Your task to perform on an android device: open app "Cash App" (install if not already installed) and go to login screen Image 0: 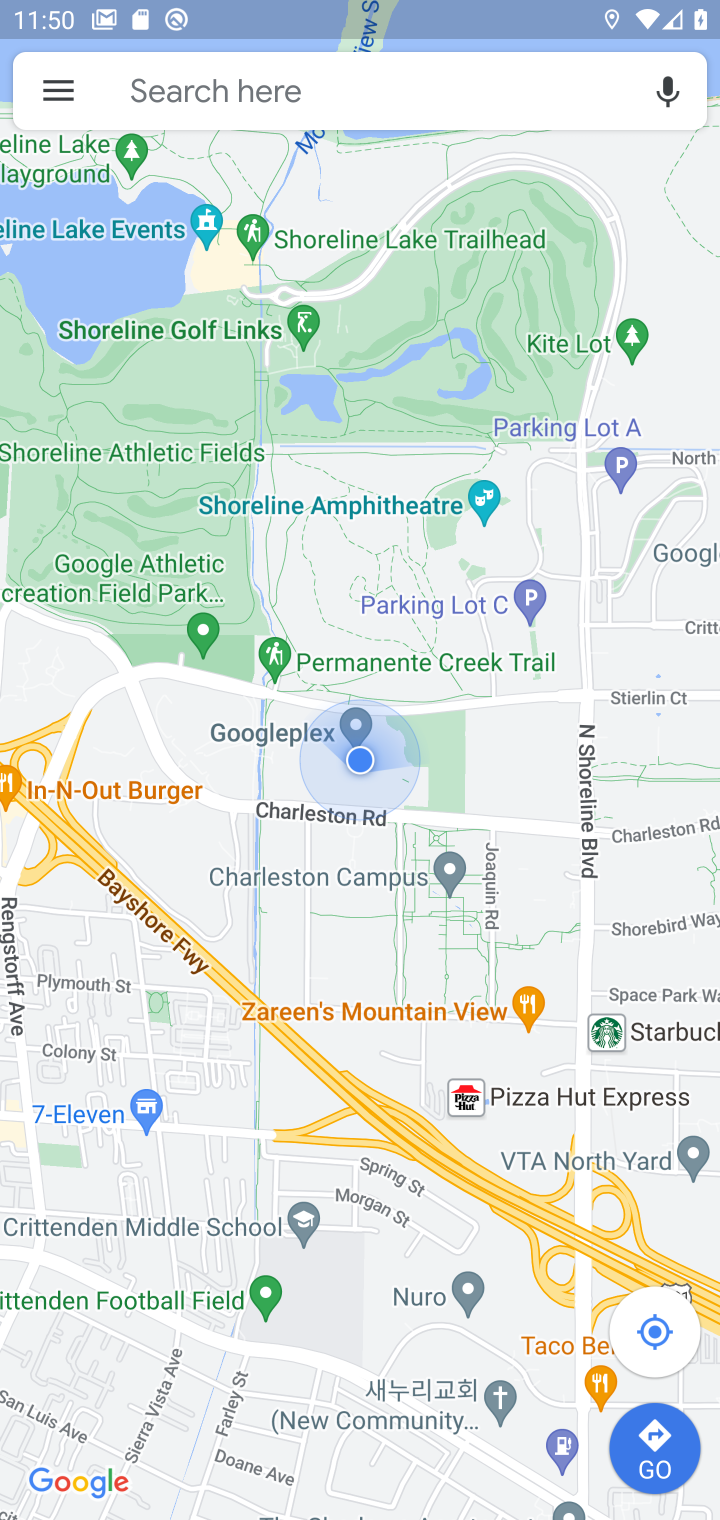
Step 0: press back button
Your task to perform on an android device: open app "Cash App" (install if not already installed) and go to login screen Image 1: 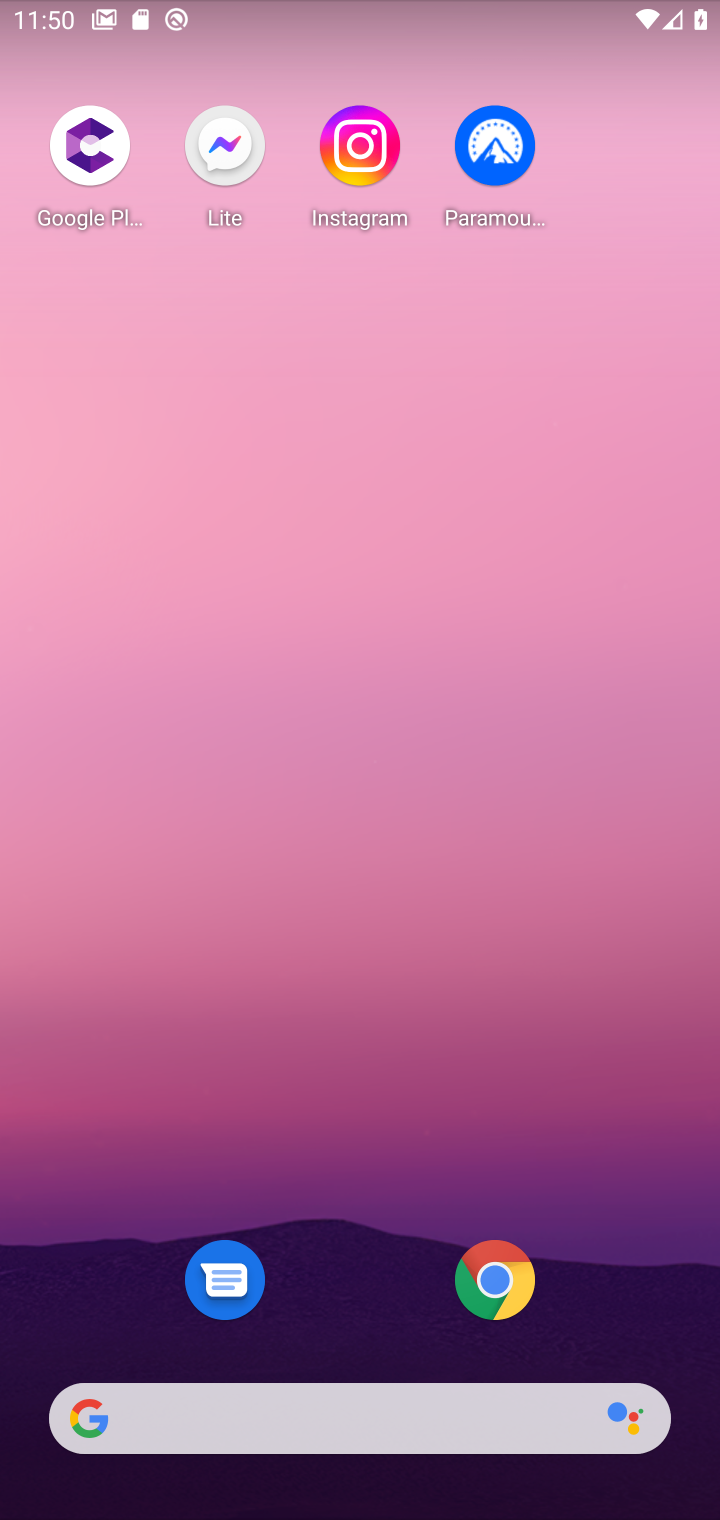
Step 1: drag from (373, 1206) to (529, 219)
Your task to perform on an android device: open app "Cash App" (install if not already installed) and go to login screen Image 2: 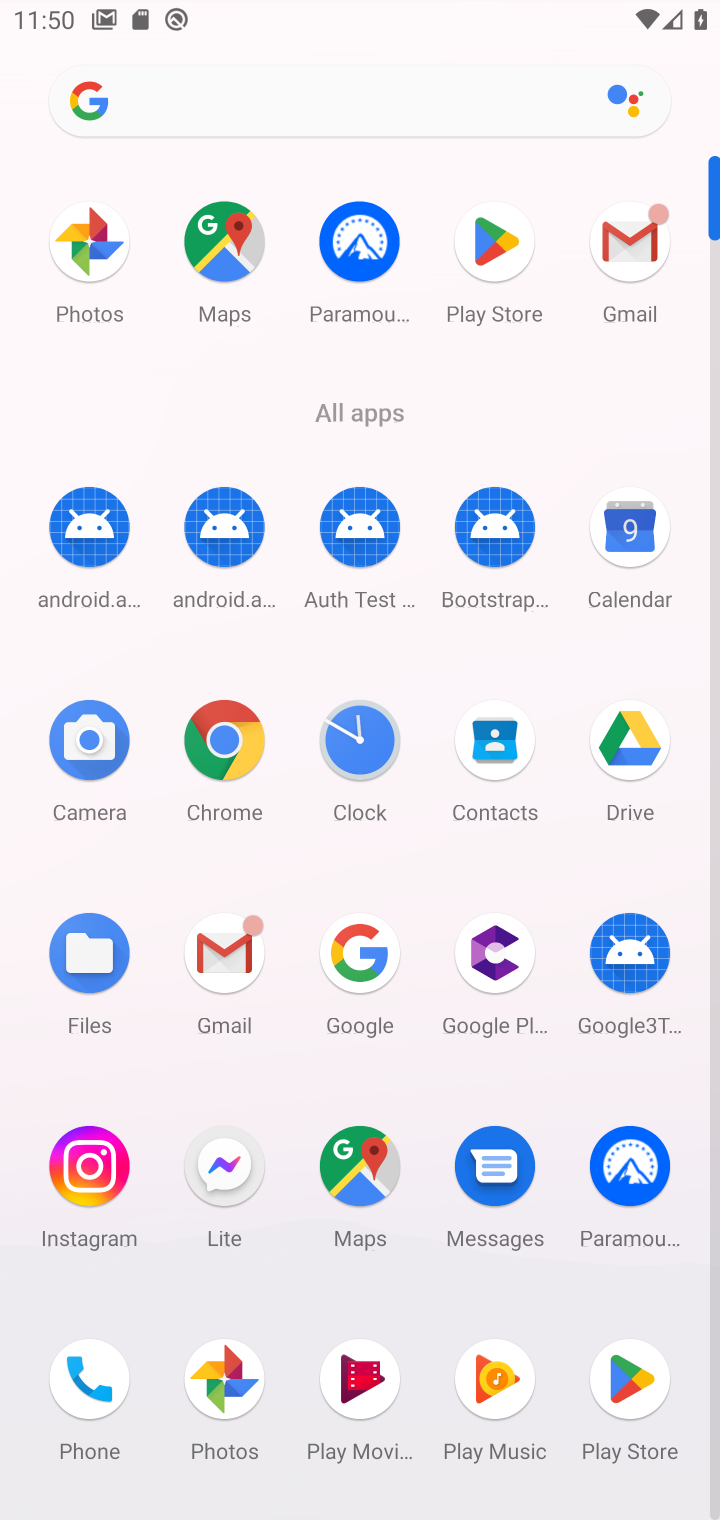
Step 2: click (497, 249)
Your task to perform on an android device: open app "Cash App" (install if not already installed) and go to login screen Image 3: 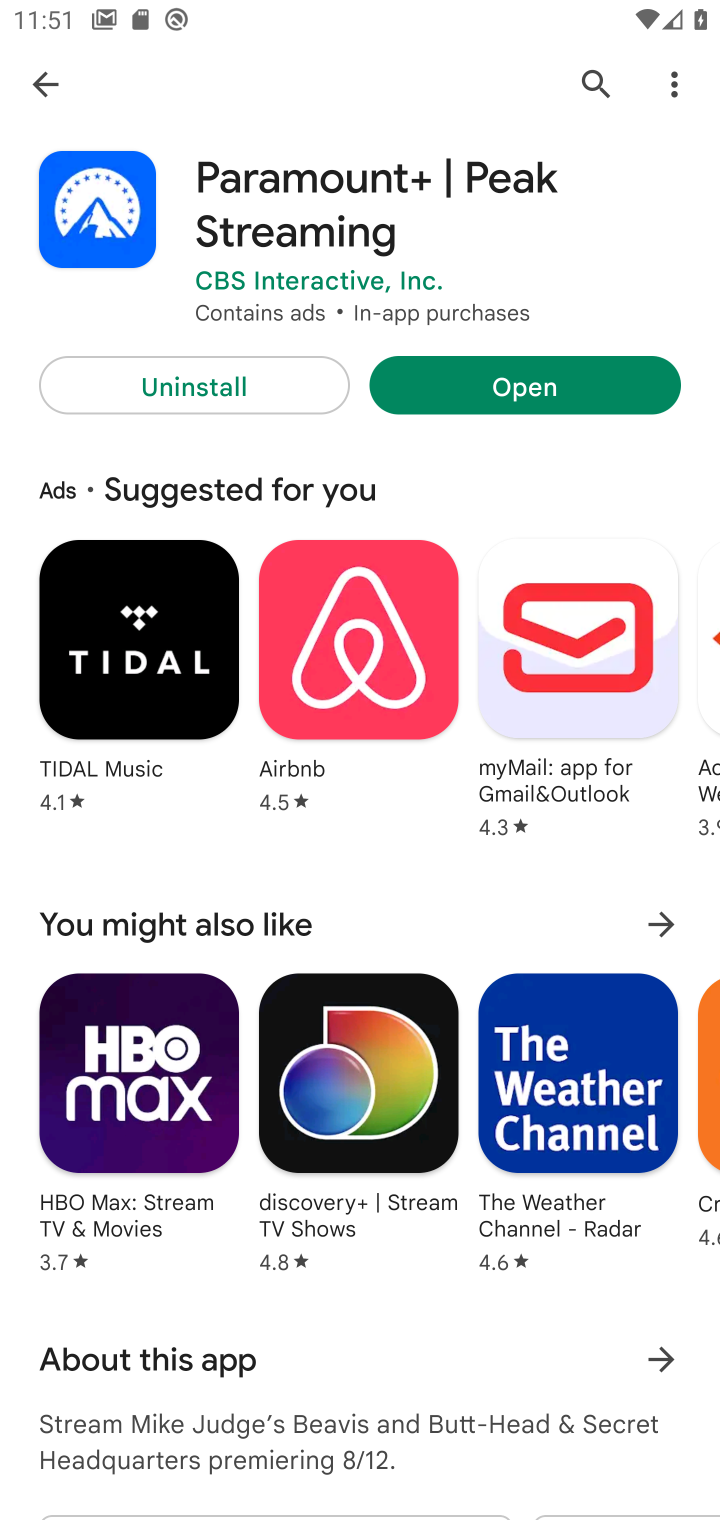
Step 3: click (593, 52)
Your task to perform on an android device: open app "Cash App" (install if not already installed) and go to login screen Image 4: 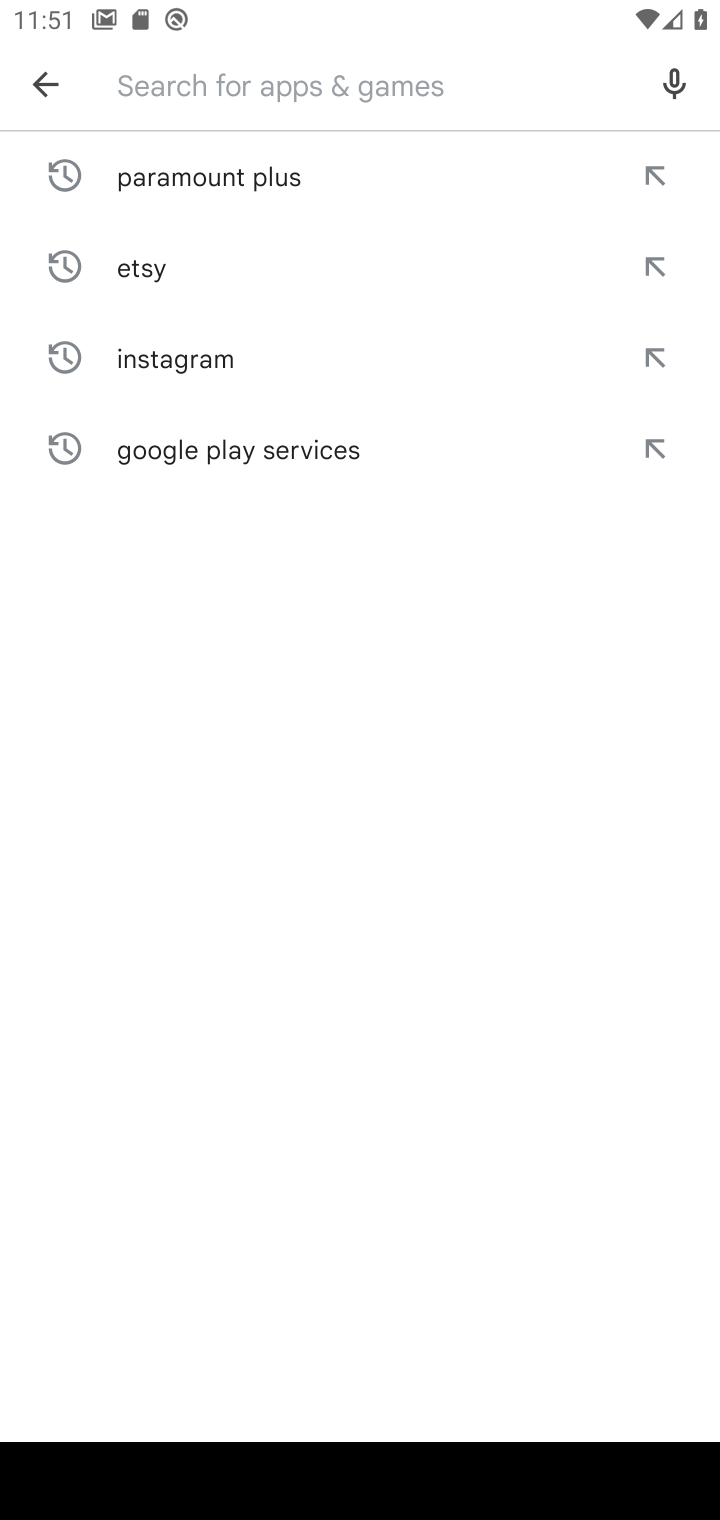
Step 4: click (264, 89)
Your task to perform on an android device: open app "Cash App" (install if not already installed) and go to login screen Image 5: 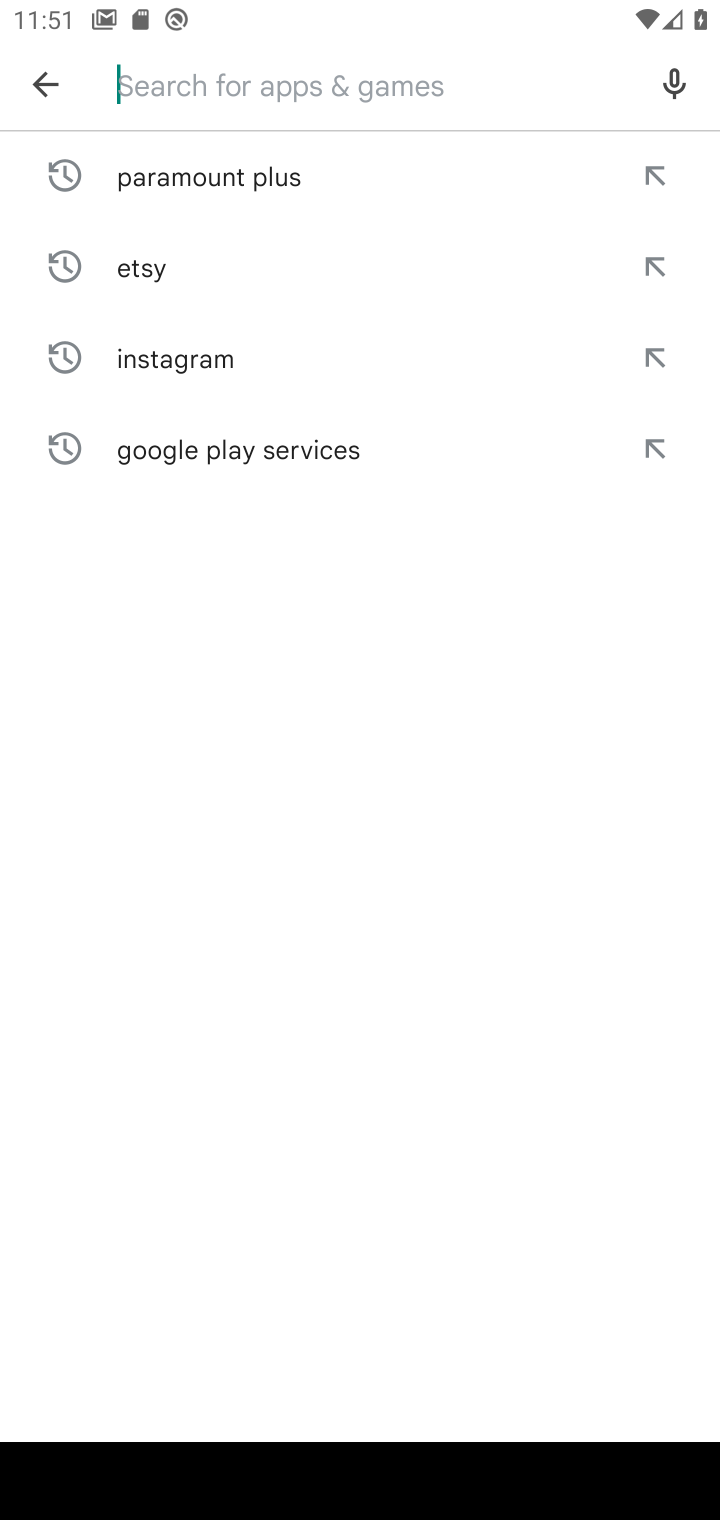
Step 5: type "Cash App"
Your task to perform on an android device: open app "Cash App" (install if not already installed) and go to login screen Image 6: 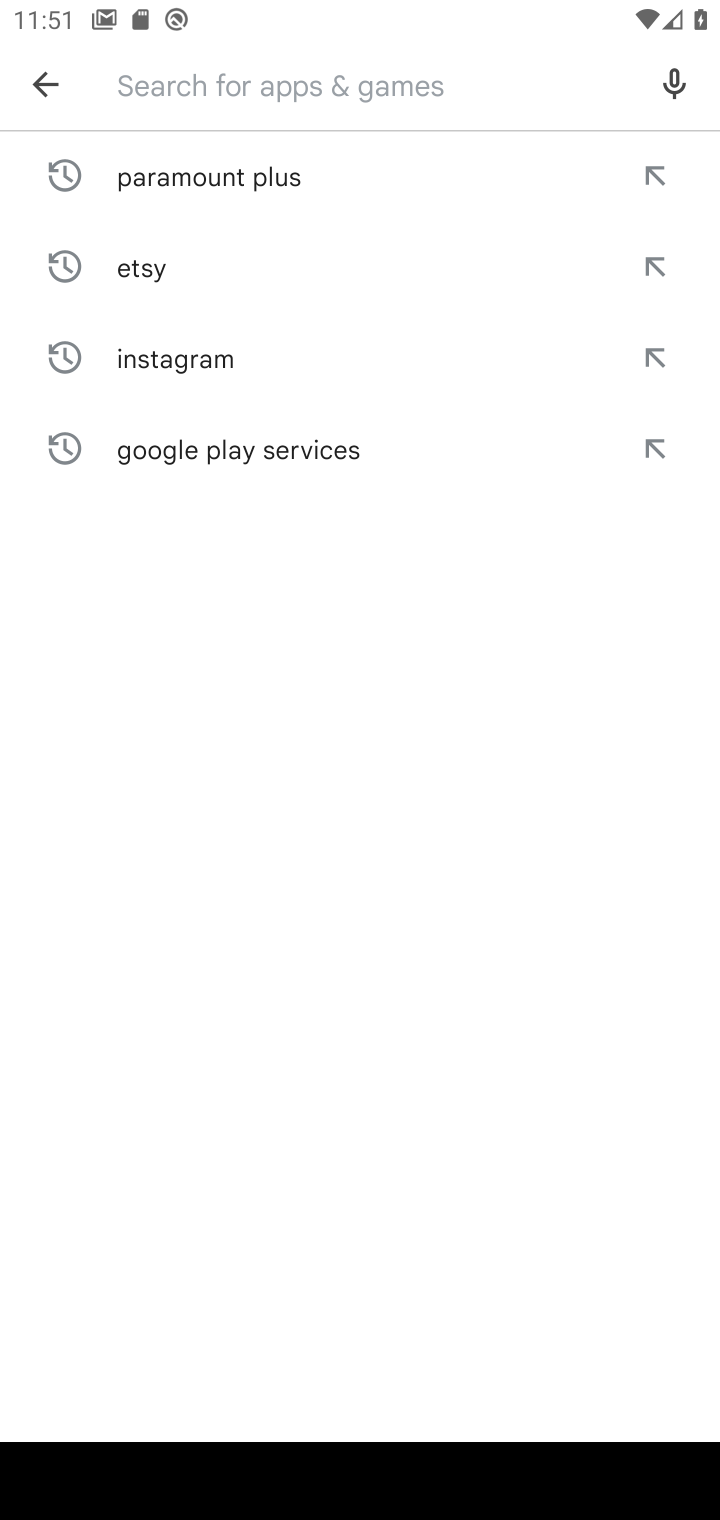
Step 6: click (520, 936)
Your task to perform on an android device: open app "Cash App" (install if not already installed) and go to login screen Image 7: 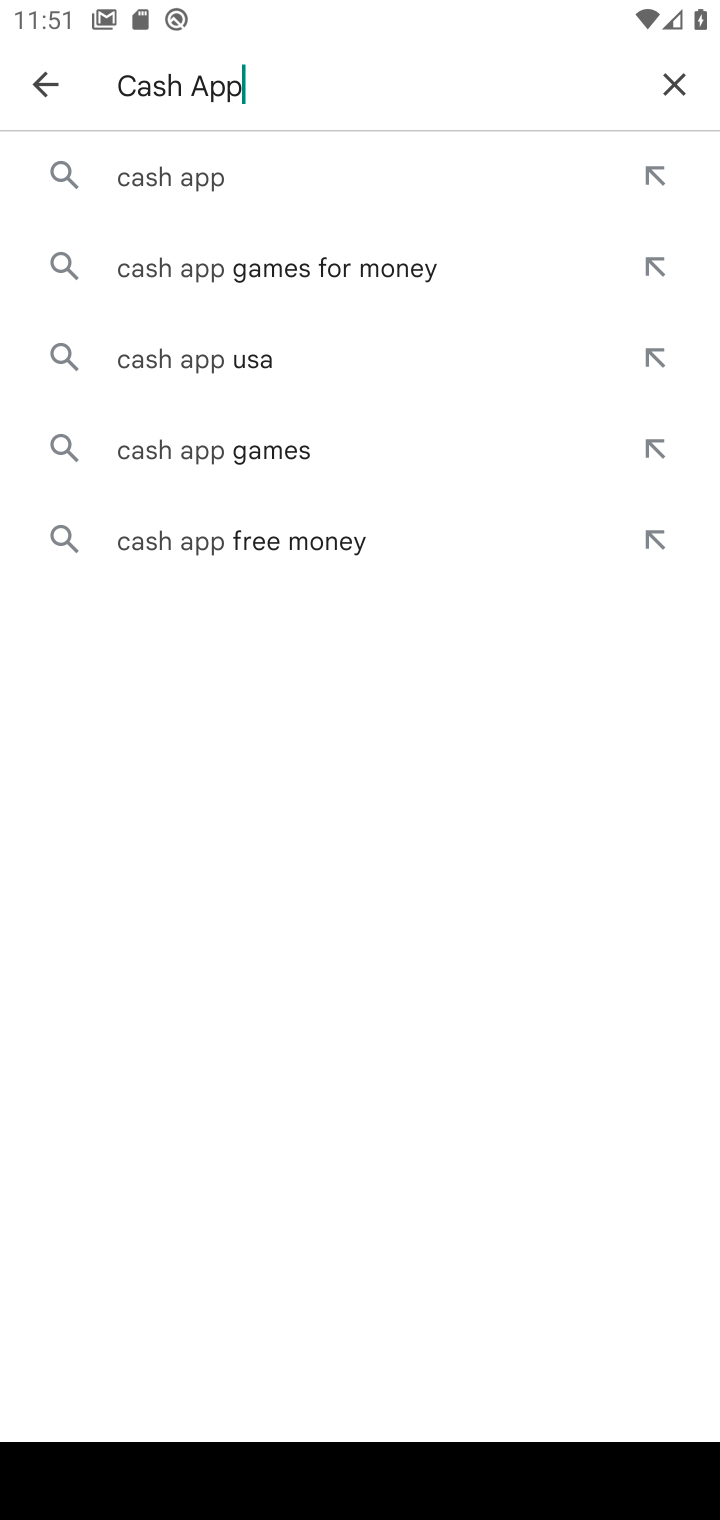
Step 7: click (214, 170)
Your task to perform on an android device: open app "Cash App" (install if not already installed) and go to login screen Image 8: 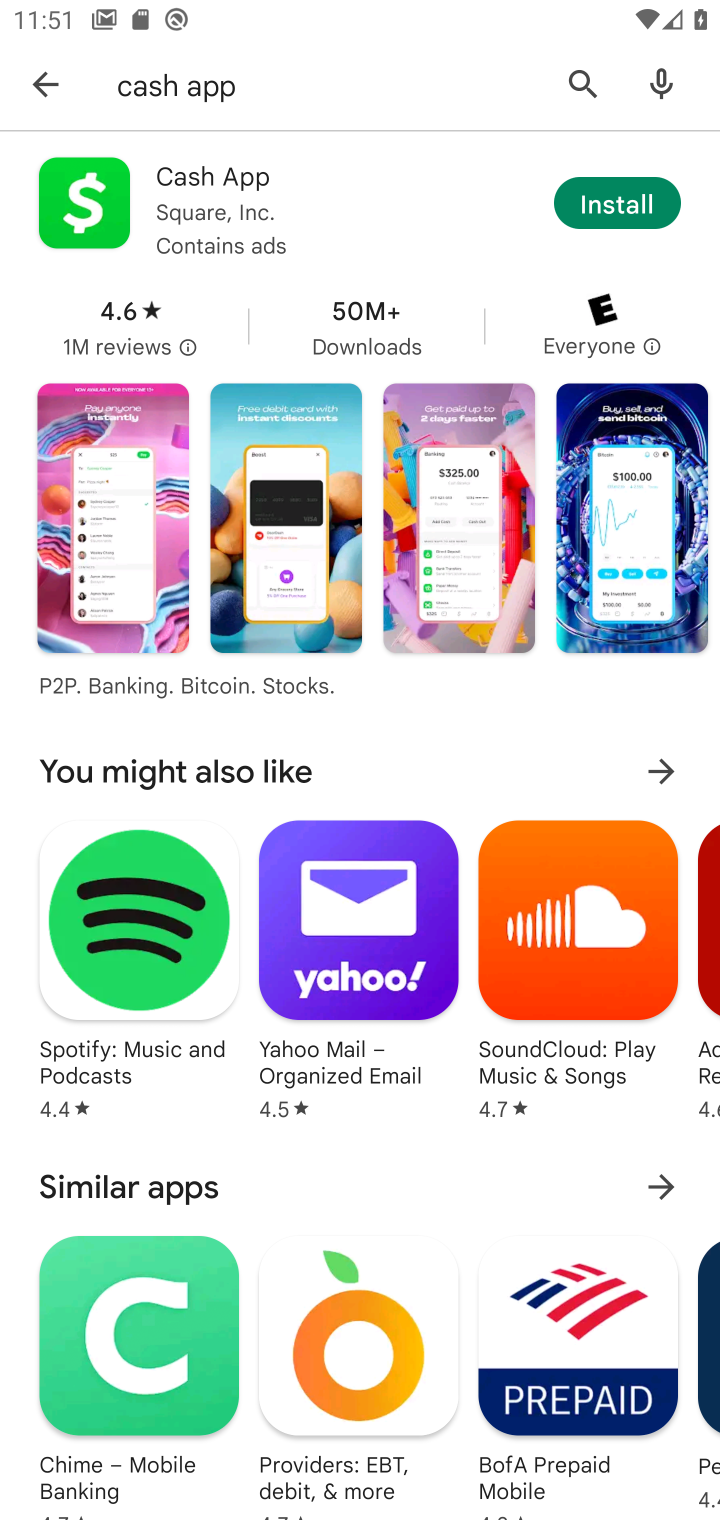
Step 8: click (626, 201)
Your task to perform on an android device: open app "Cash App" (install if not already installed) and go to login screen Image 9: 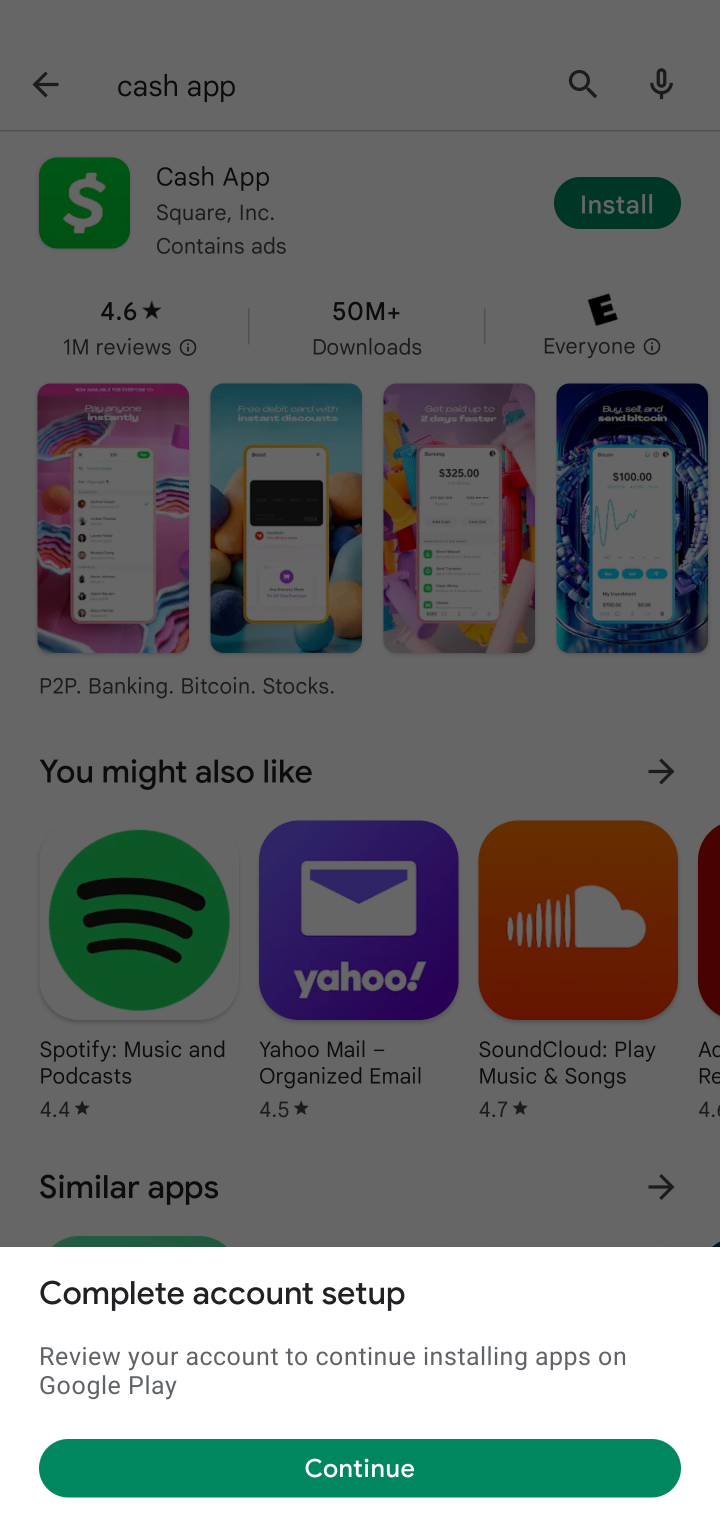
Step 9: click (510, 1450)
Your task to perform on an android device: open app "Cash App" (install if not already installed) and go to login screen Image 10: 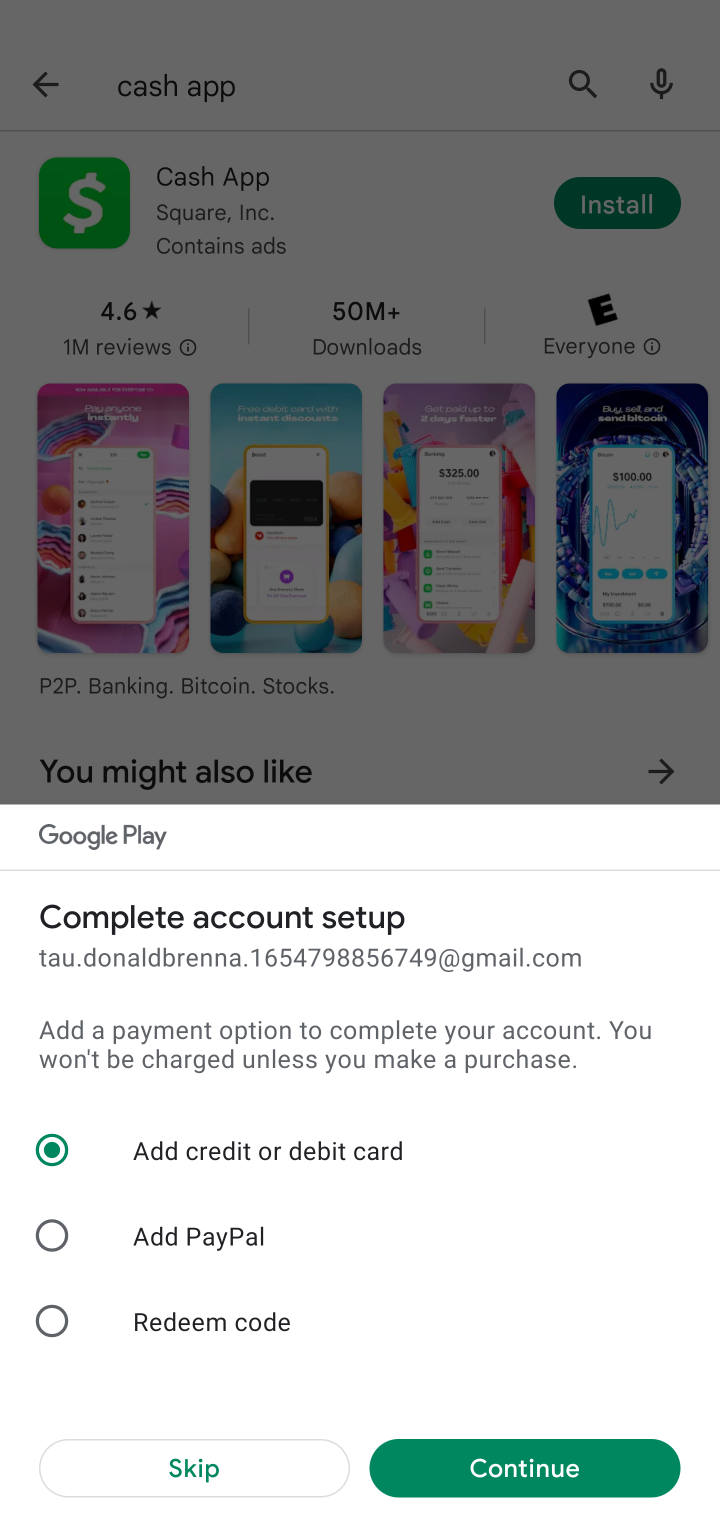
Step 10: click (242, 1458)
Your task to perform on an android device: open app "Cash App" (install if not already installed) and go to login screen Image 11: 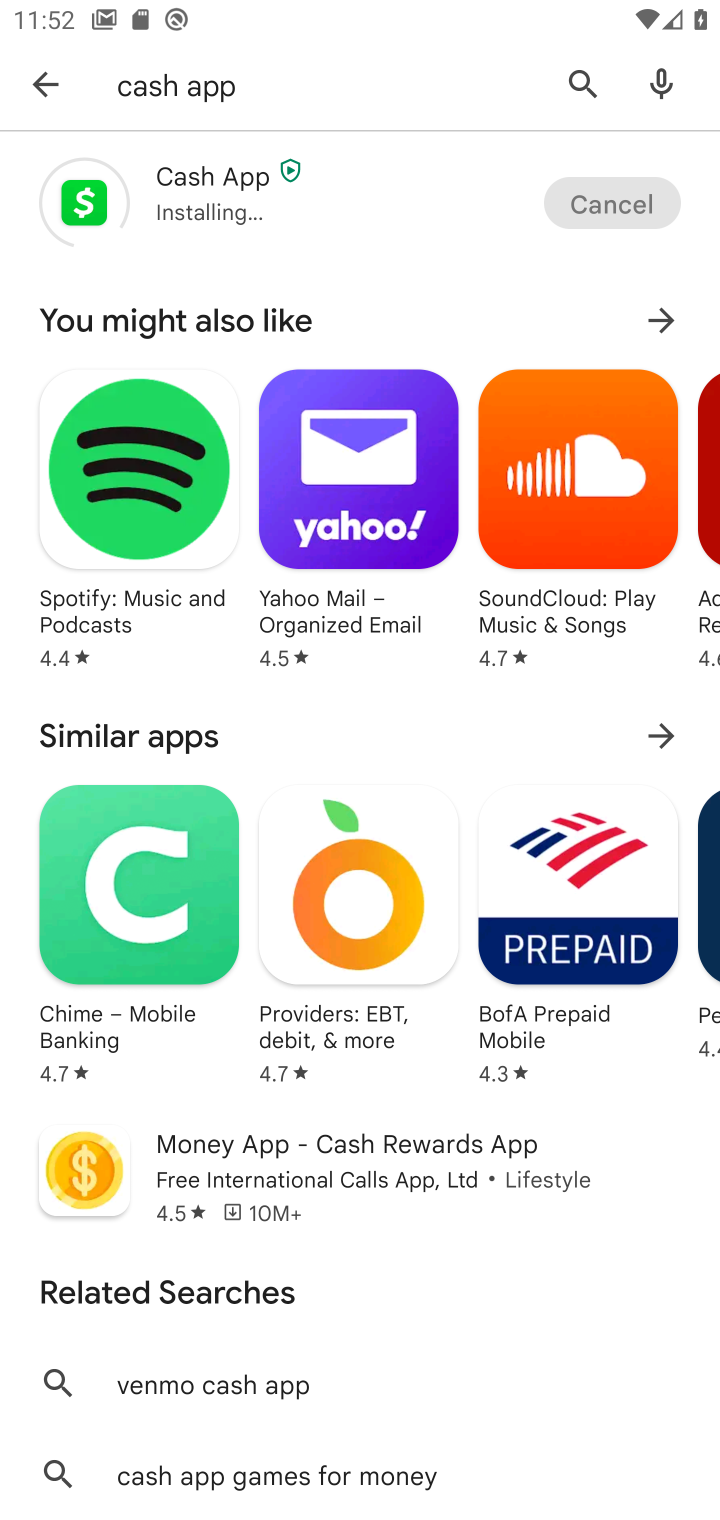
Step 11: click (386, 1318)
Your task to perform on an android device: open app "Cash App" (install if not already installed) and go to login screen Image 12: 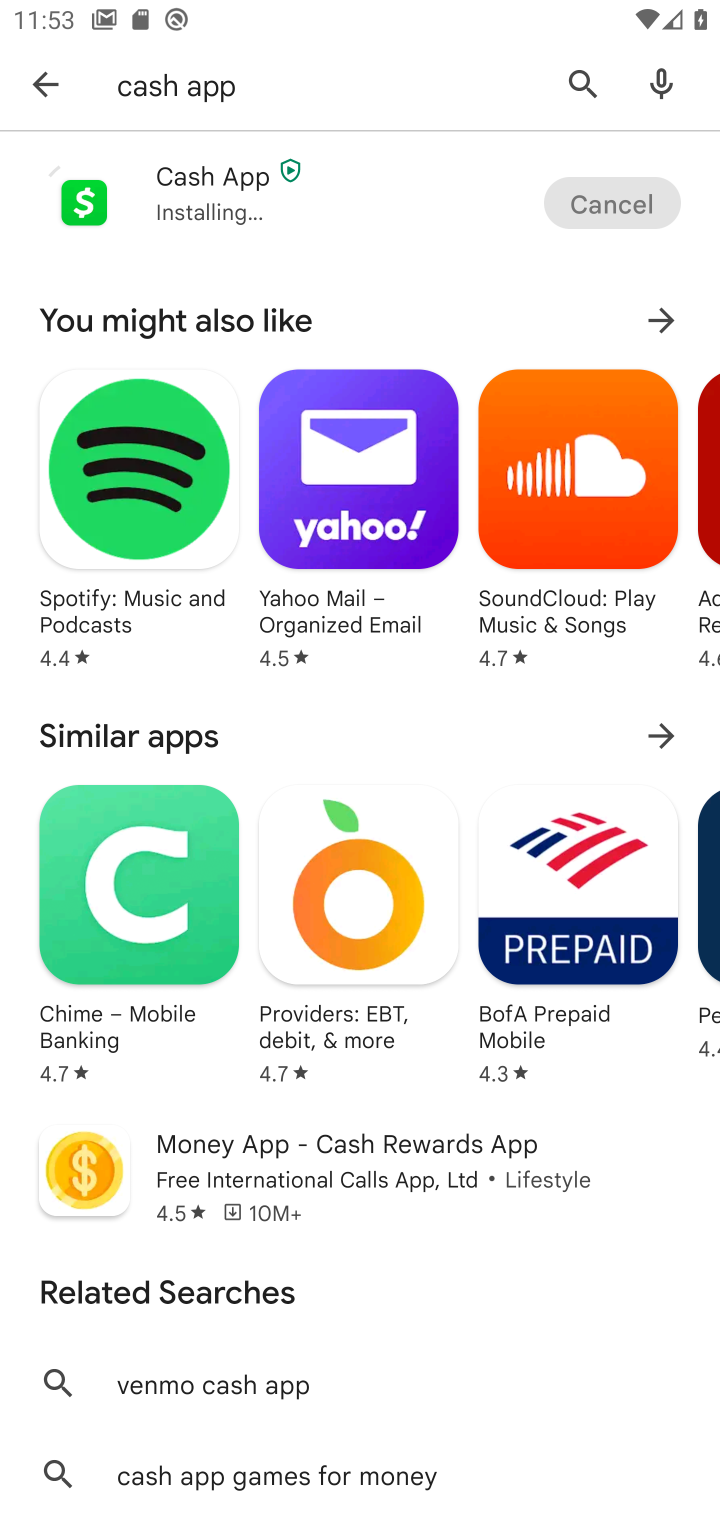
Step 12: press back button
Your task to perform on an android device: open app "Cash App" (install if not already installed) and go to login screen Image 13: 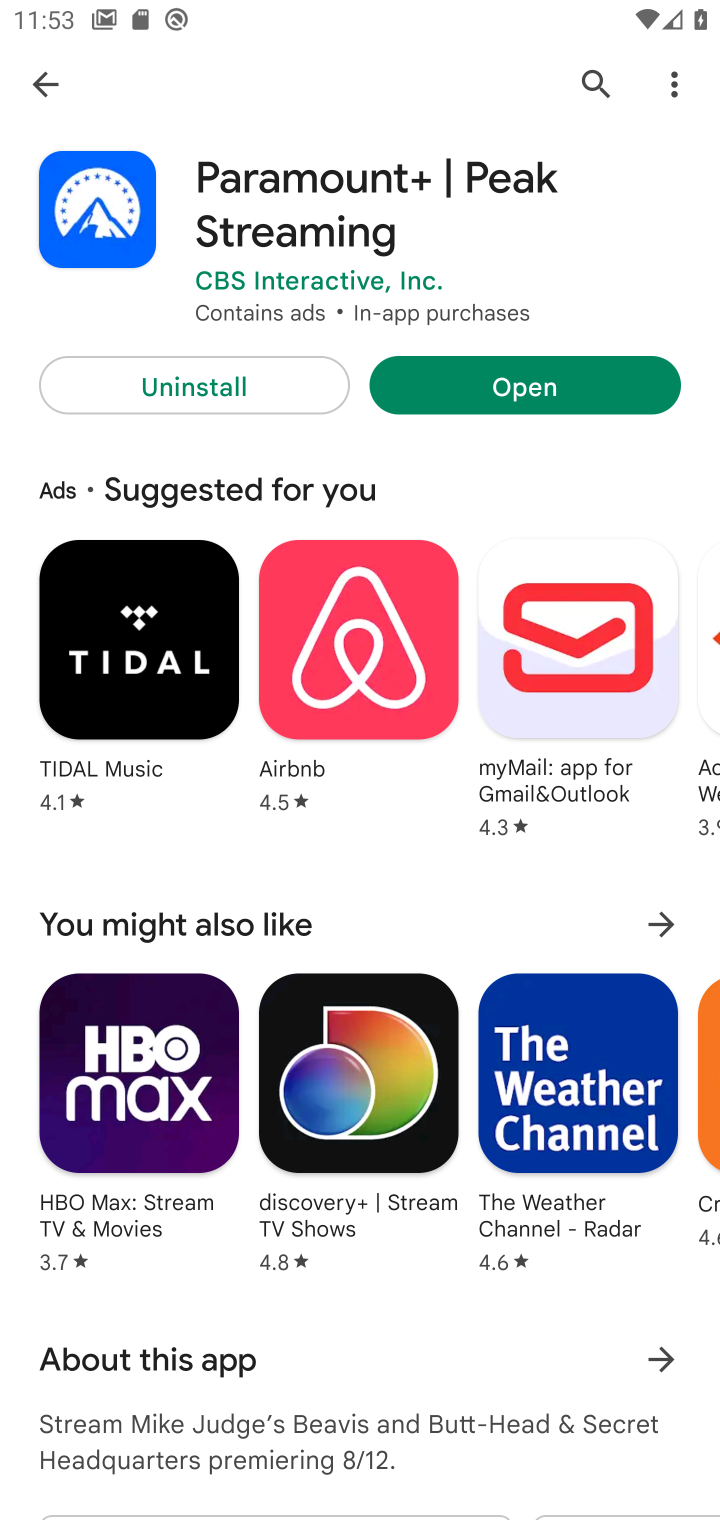
Step 13: press back button
Your task to perform on an android device: open app "Cash App" (install if not already installed) and go to login screen Image 14: 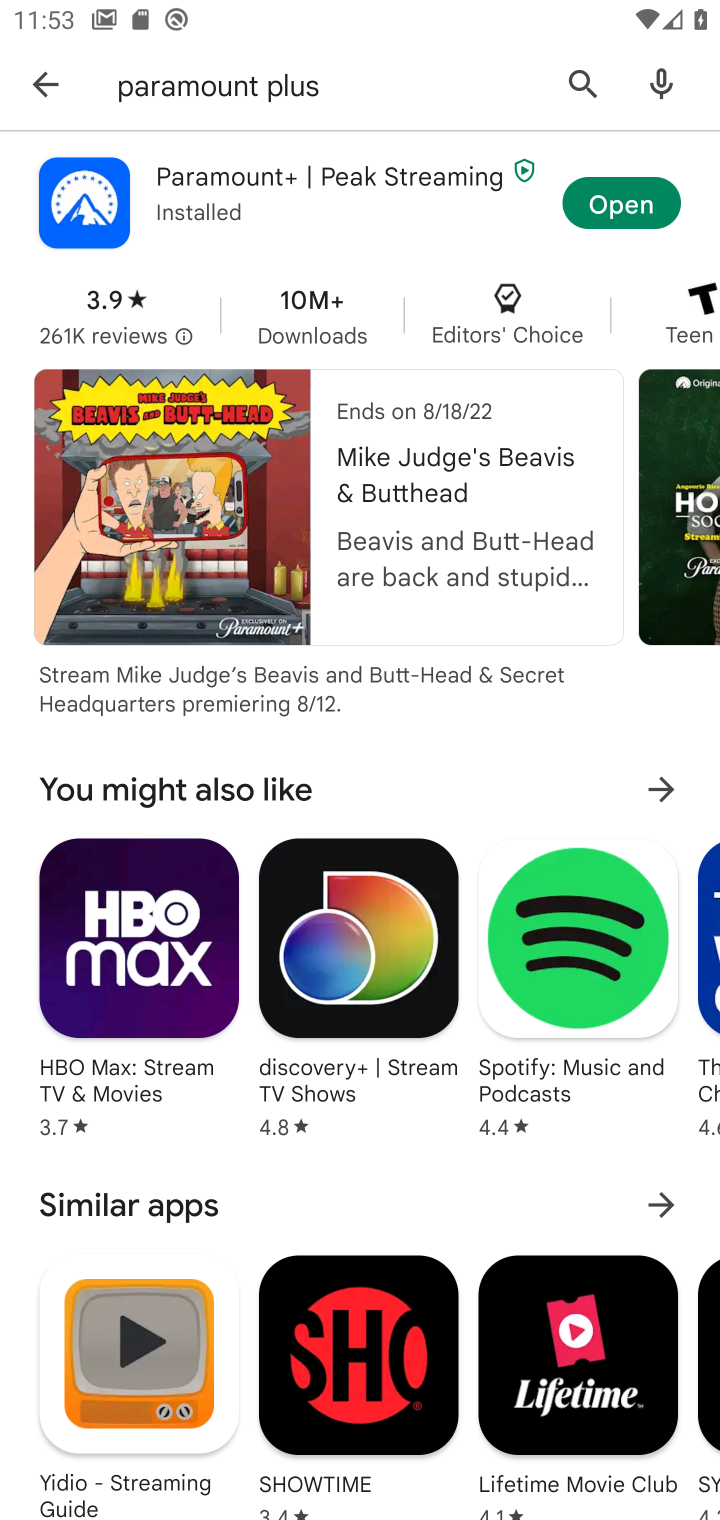
Step 14: click (583, 64)
Your task to perform on an android device: open app "Cash App" (install if not already installed) and go to login screen Image 15: 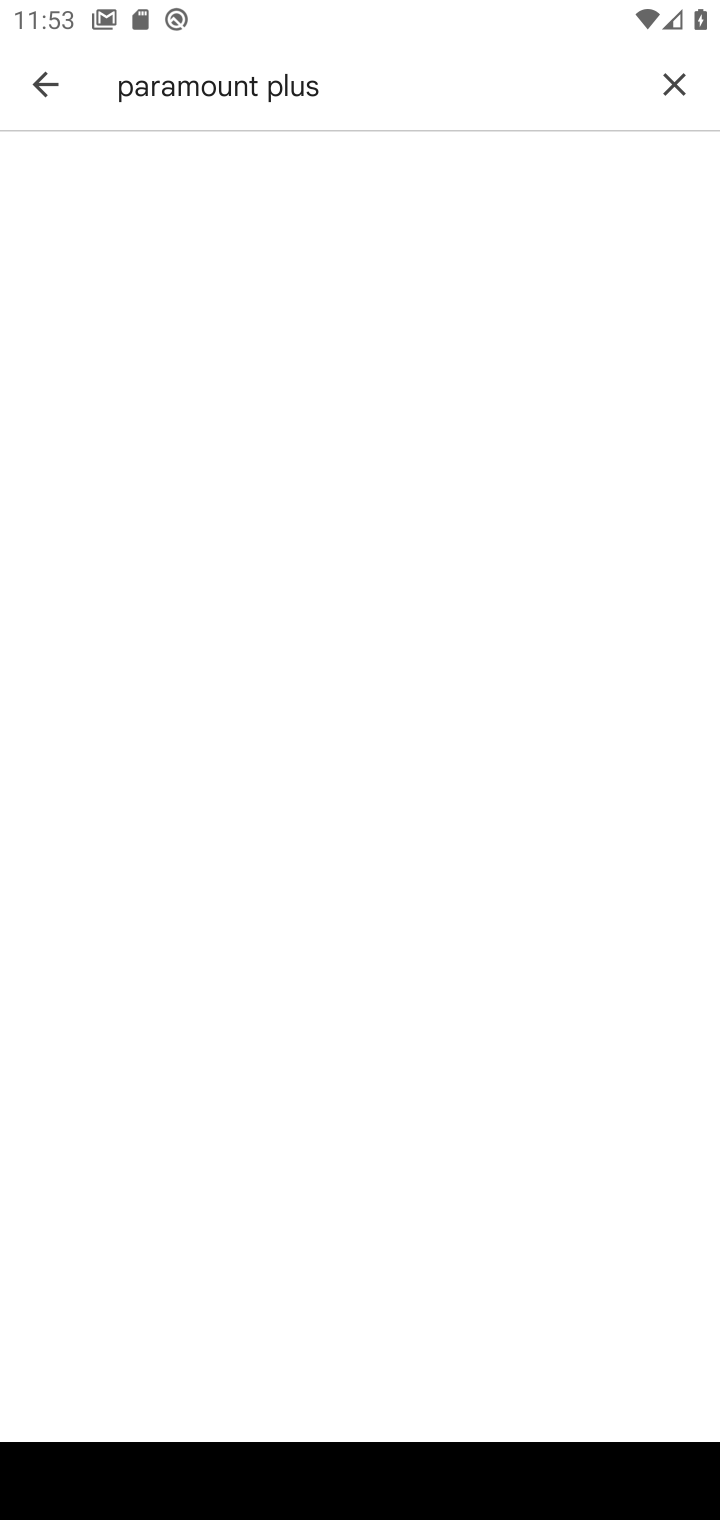
Step 15: click (684, 71)
Your task to perform on an android device: open app "Cash App" (install if not already installed) and go to login screen Image 16: 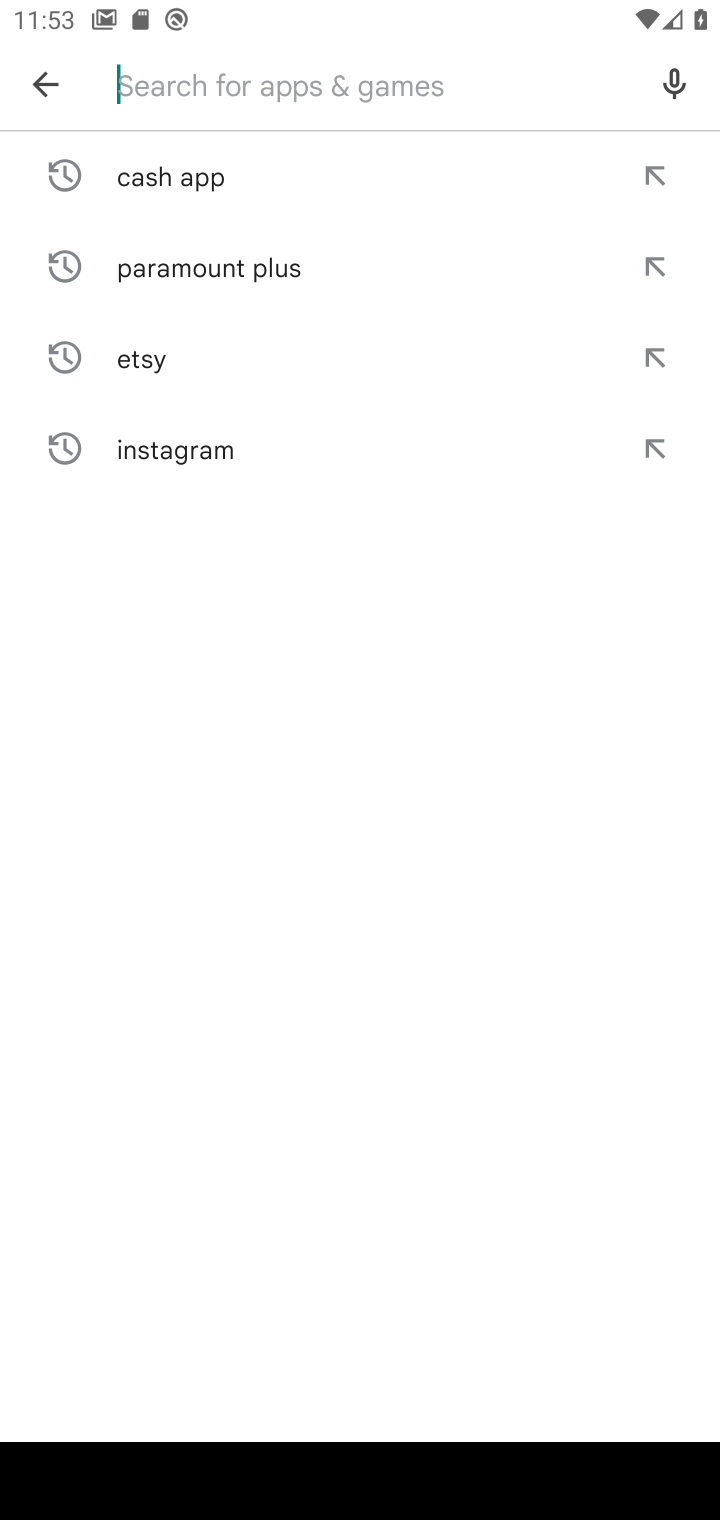
Step 16: click (160, 165)
Your task to perform on an android device: open app "Cash App" (install if not already installed) and go to login screen Image 17: 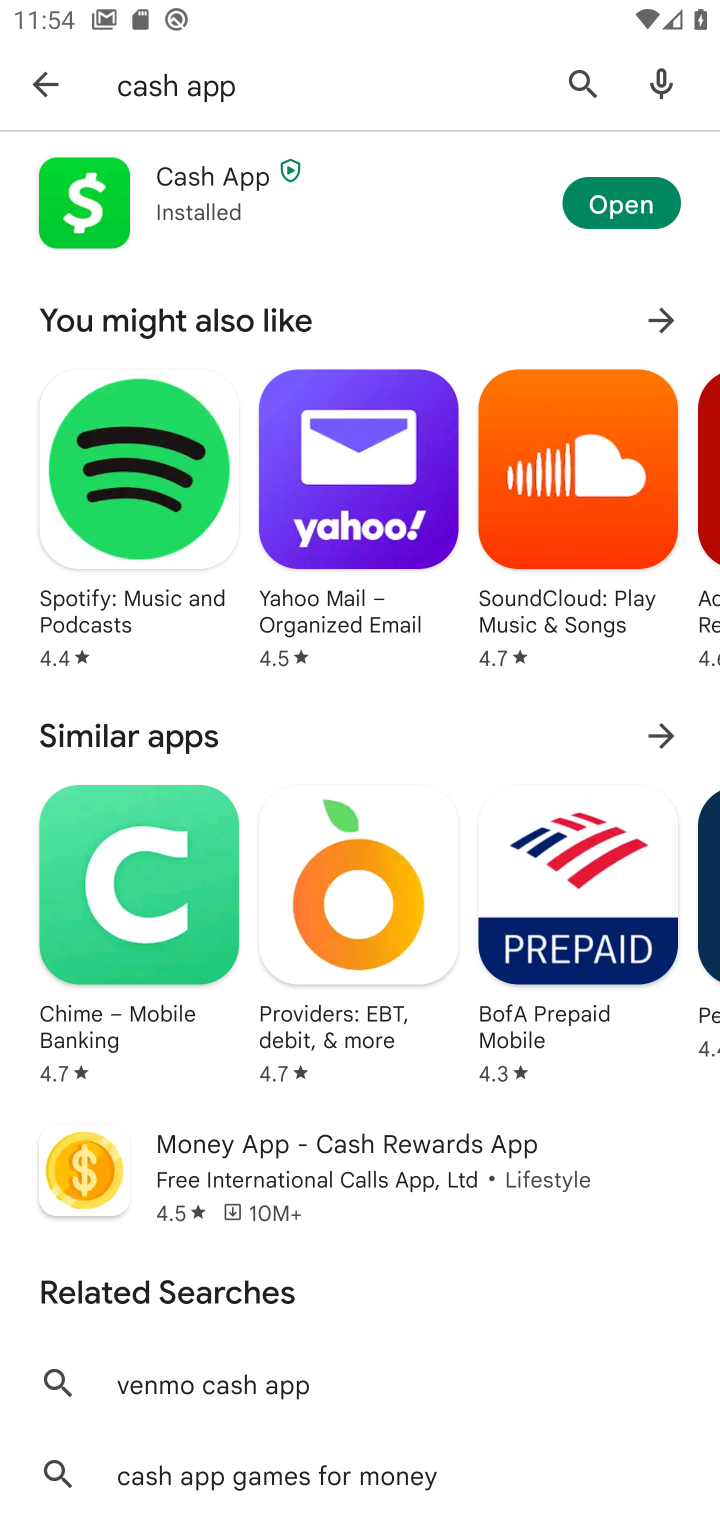
Step 17: click (634, 206)
Your task to perform on an android device: open app "Cash App" (install if not already installed) and go to login screen Image 18: 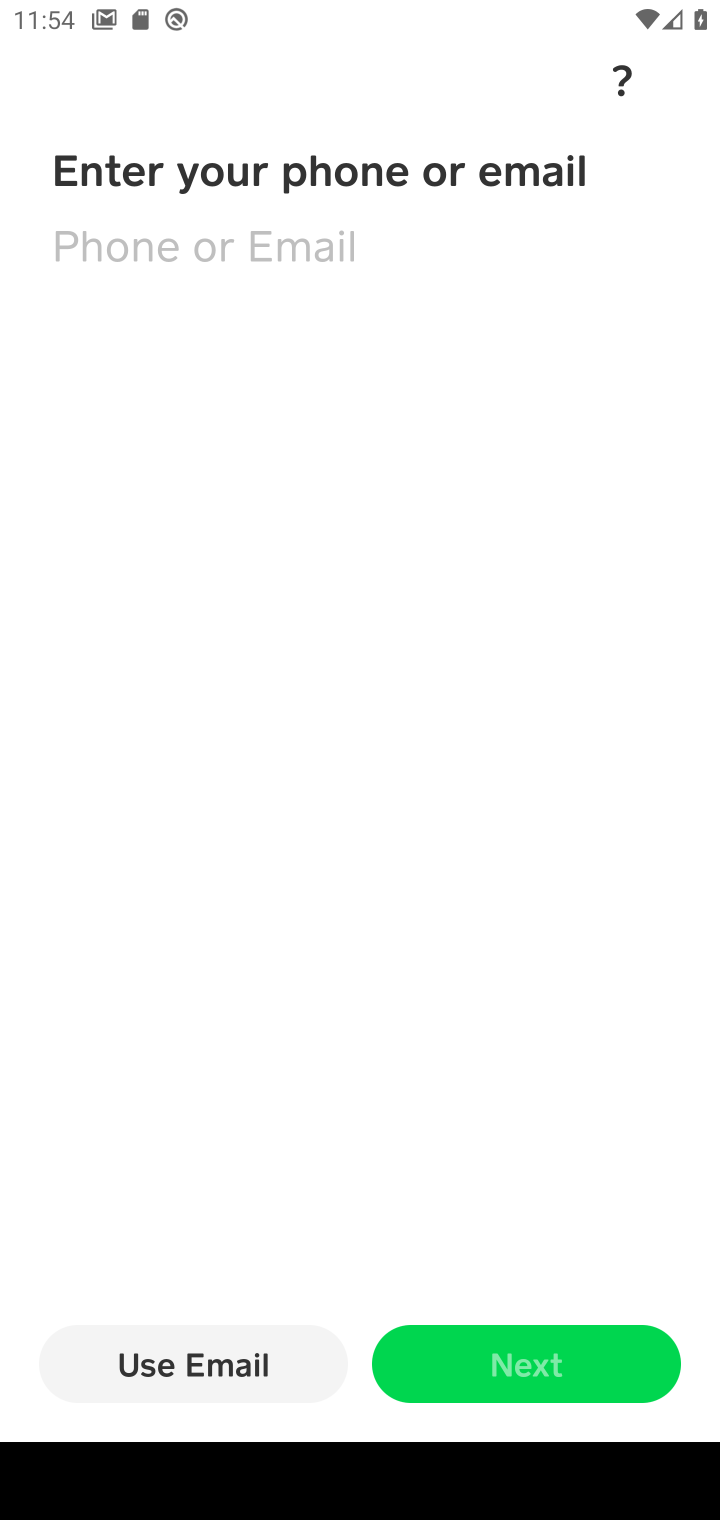
Step 18: task complete